Your task to perform on an android device: Search for a cheap bike on Walmart Image 0: 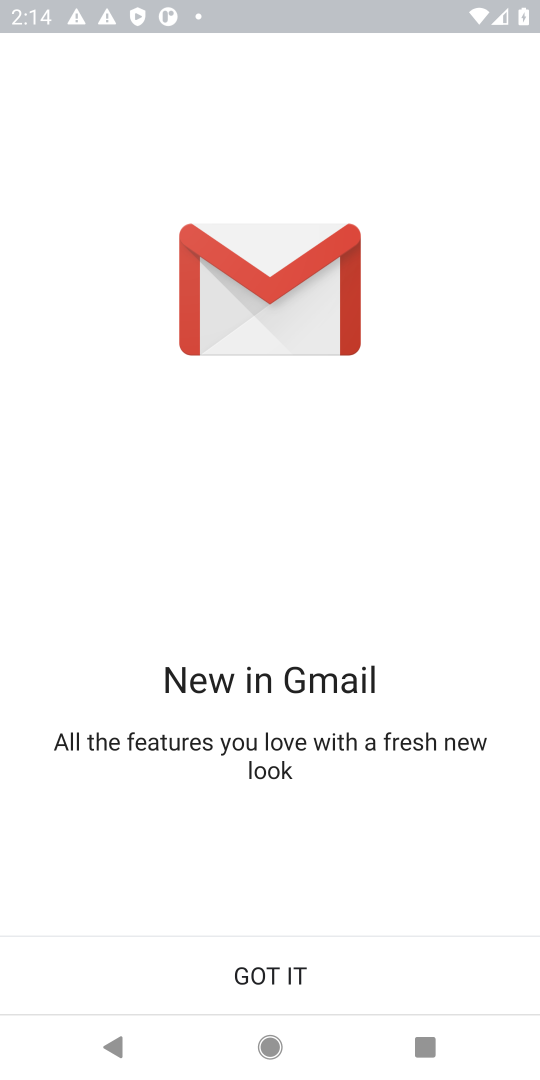
Step 0: press home button
Your task to perform on an android device: Search for a cheap bike on Walmart Image 1: 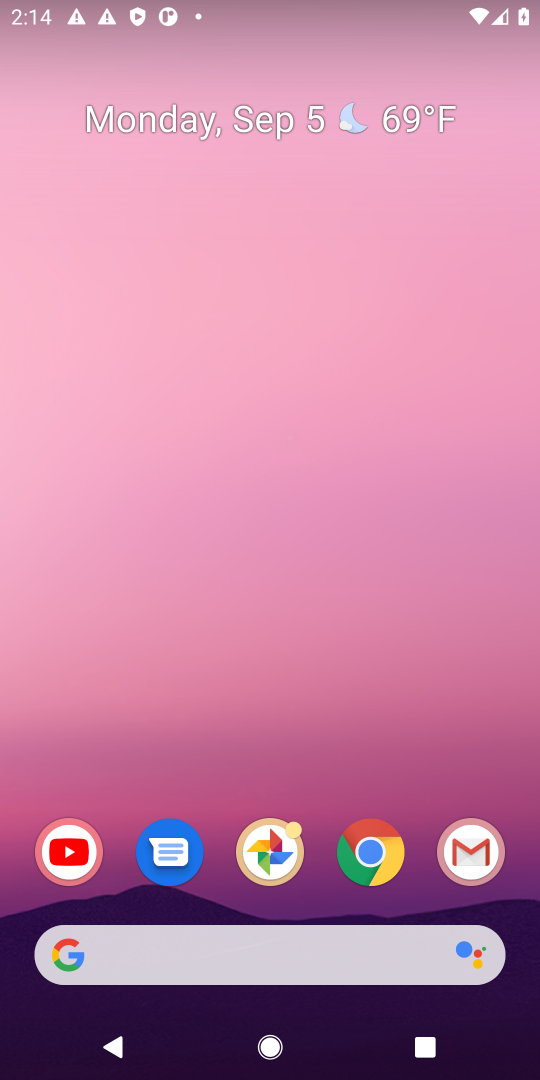
Step 1: click (374, 854)
Your task to perform on an android device: Search for a cheap bike on Walmart Image 2: 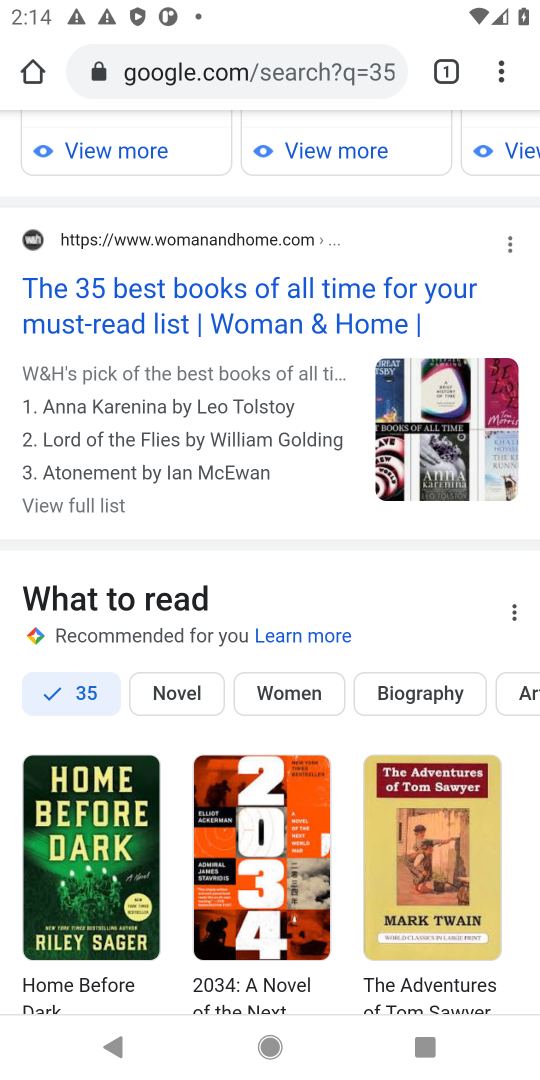
Step 2: click (279, 52)
Your task to perform on an android device: Search for a cheap bike on Walmart Image 3: 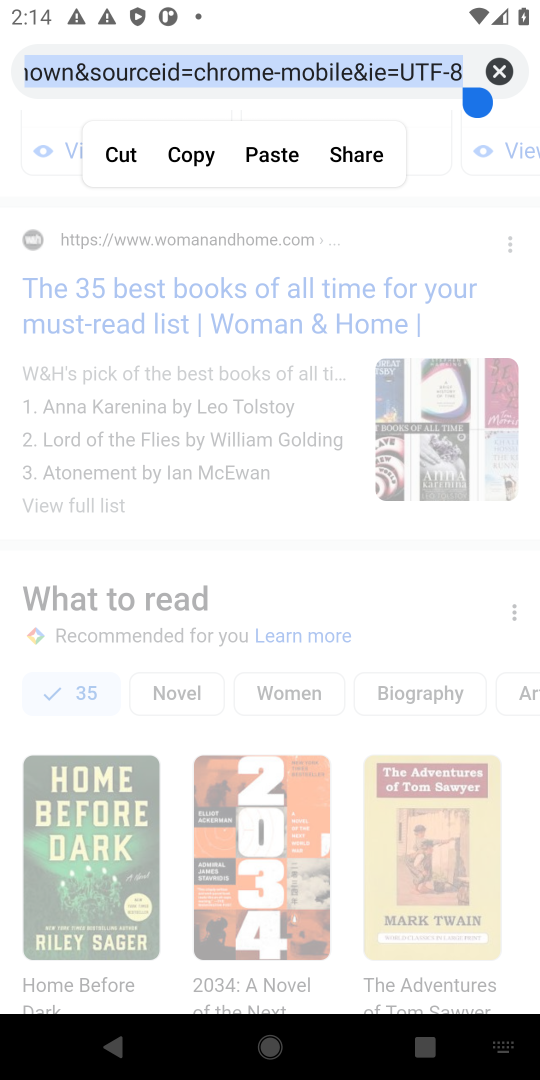
Step 3: click (493, 65)
Your task to perform on an android device: Search for a cheap bike on Walmart Image 4: 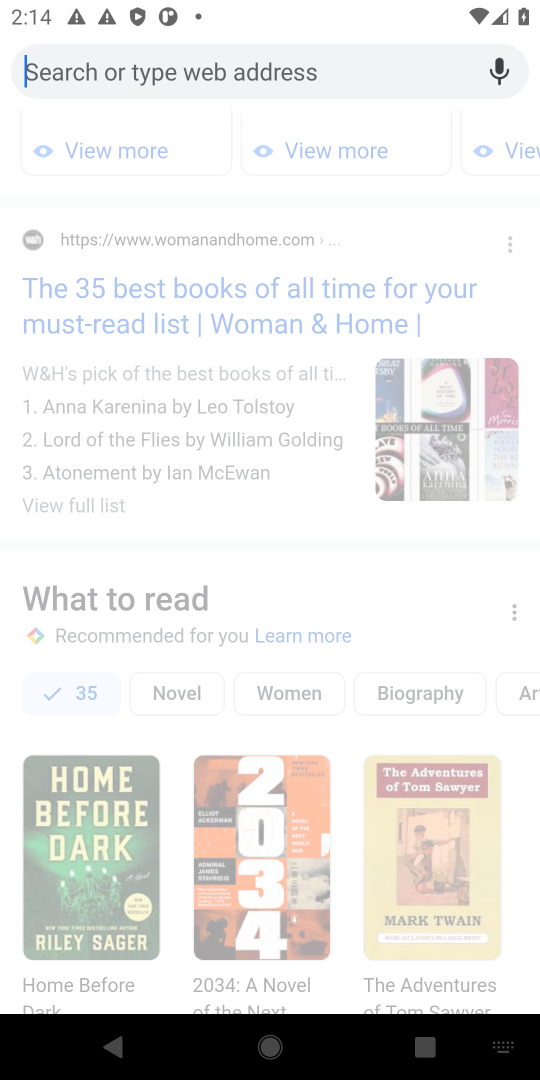
Step 4: type "Walmart"
Your task to perform on an android device: Search for a cheap bike on Walmart Image 5: 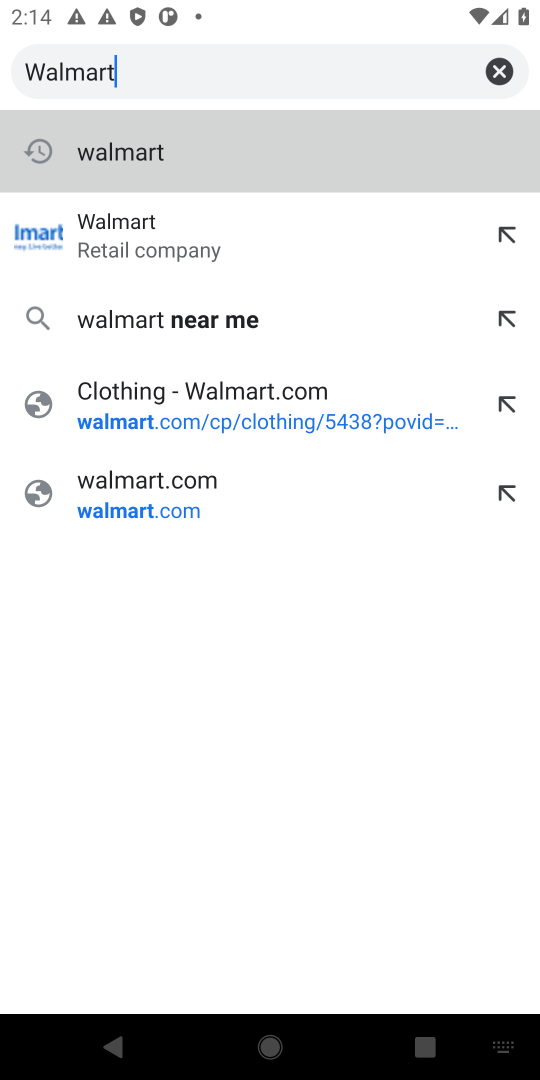
Step 5: click (110, 231)
Your task to perform on an android device: Search for a cheap bike on Walmart Image 6: 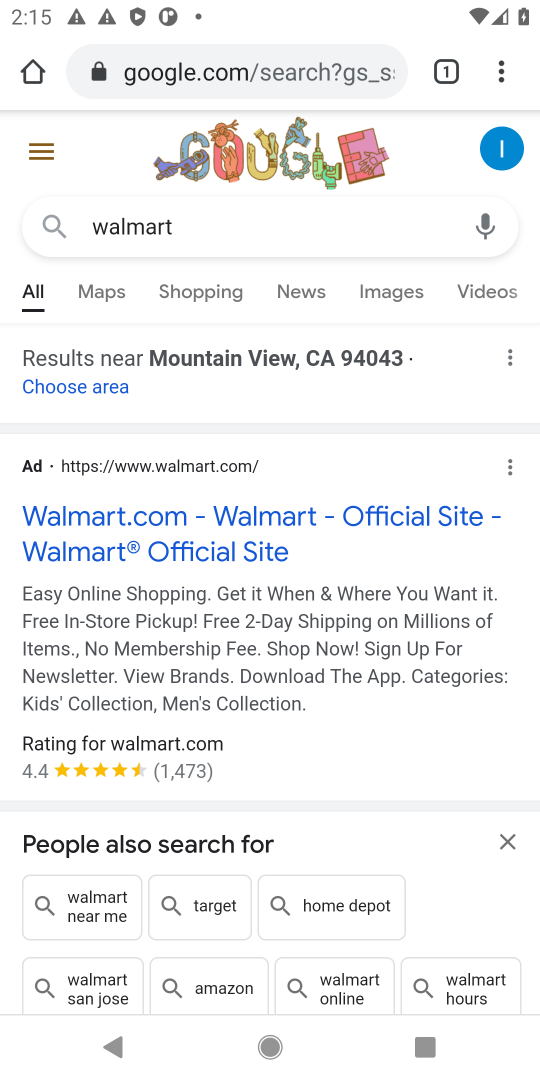
Step 6: click (82, 512)
Your task to perform on an android device: Search for a cheap bike on Walmart Image 7: 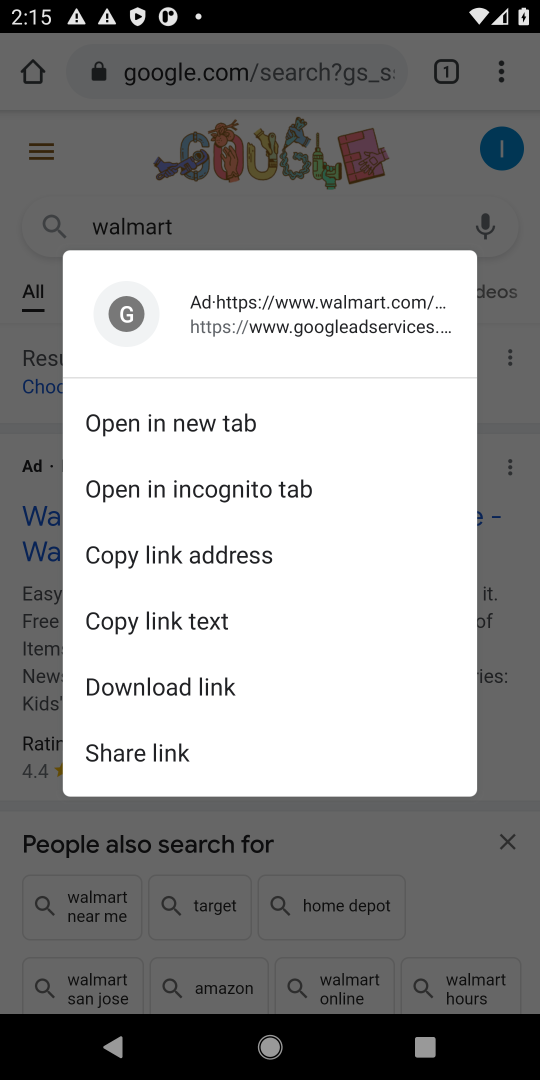
Step 7: click (18, 533)
Your task to perform on an android device: Search for a cheap bike on Walmart Image 8: 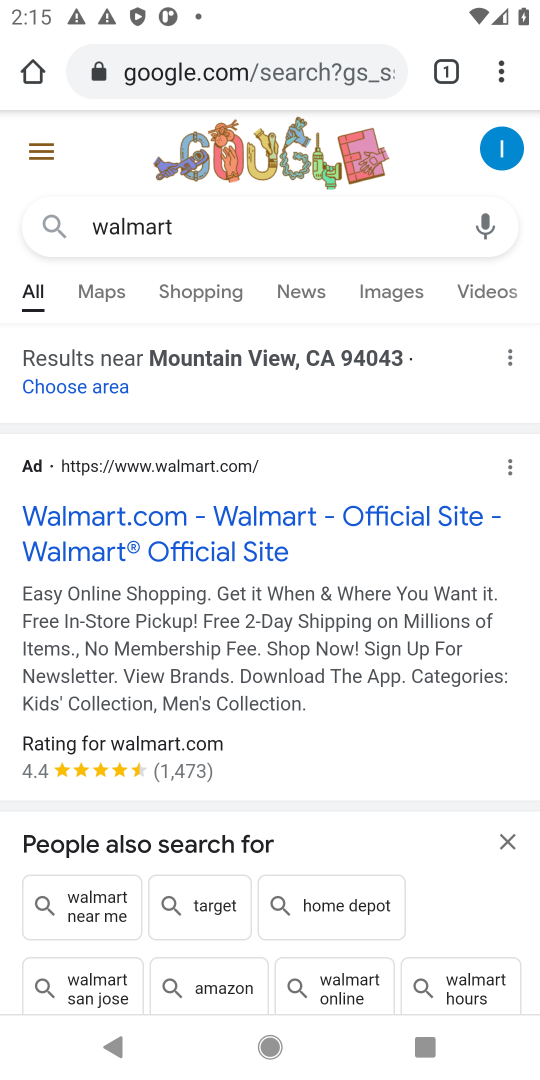
Step 8: click (120, 515)
Your task to perform on an android device: Search for a cheap bike on Walmart Image 9: 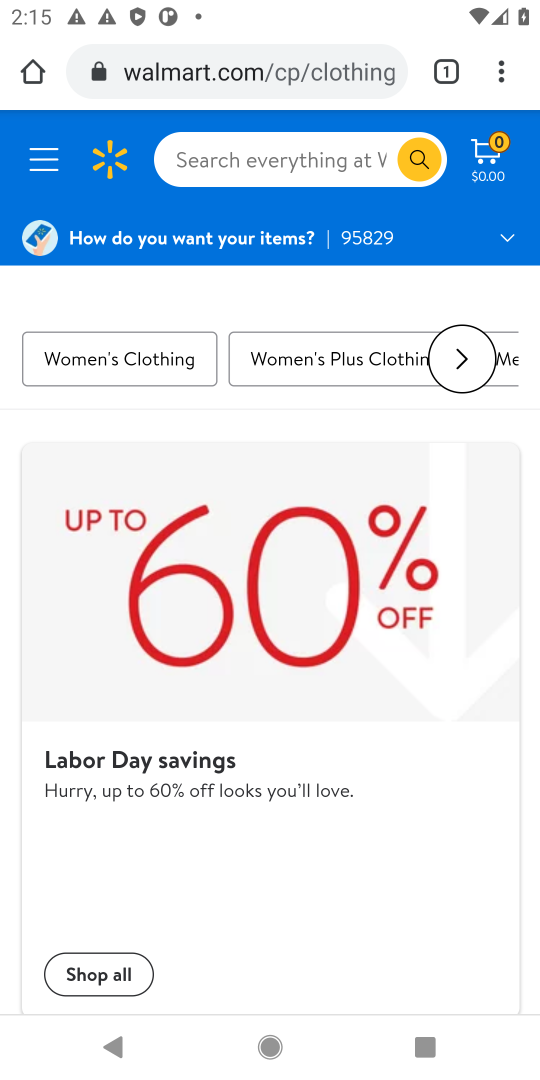
Step 9: click (281, 159)
Your task to perform on an android device: Search for a cheap bike on Walmart Image 10: 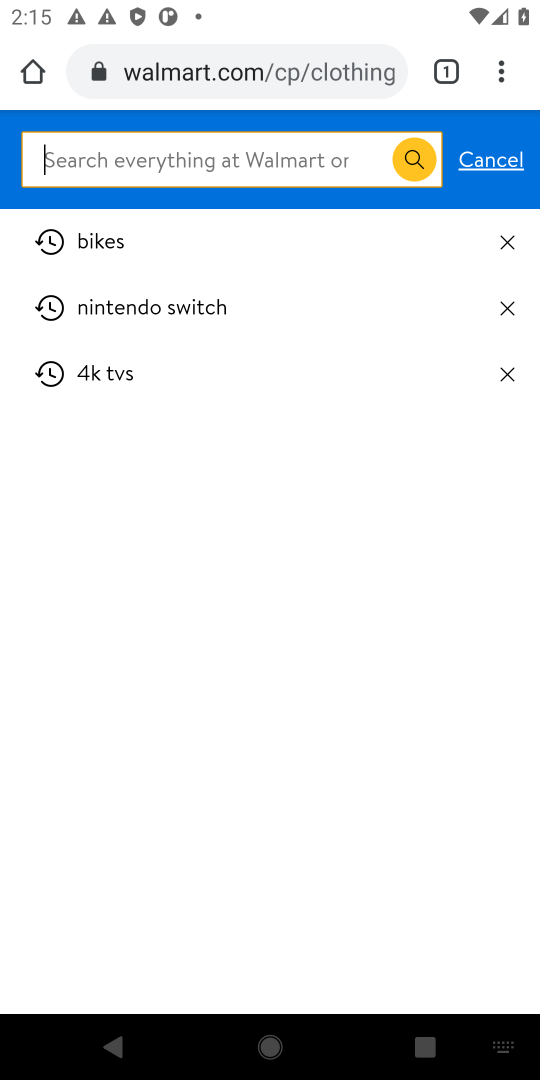
Step 10: type "cheap bike"
Your task to perform on an android device: Search for a cheap bike on Walmart Image 11: 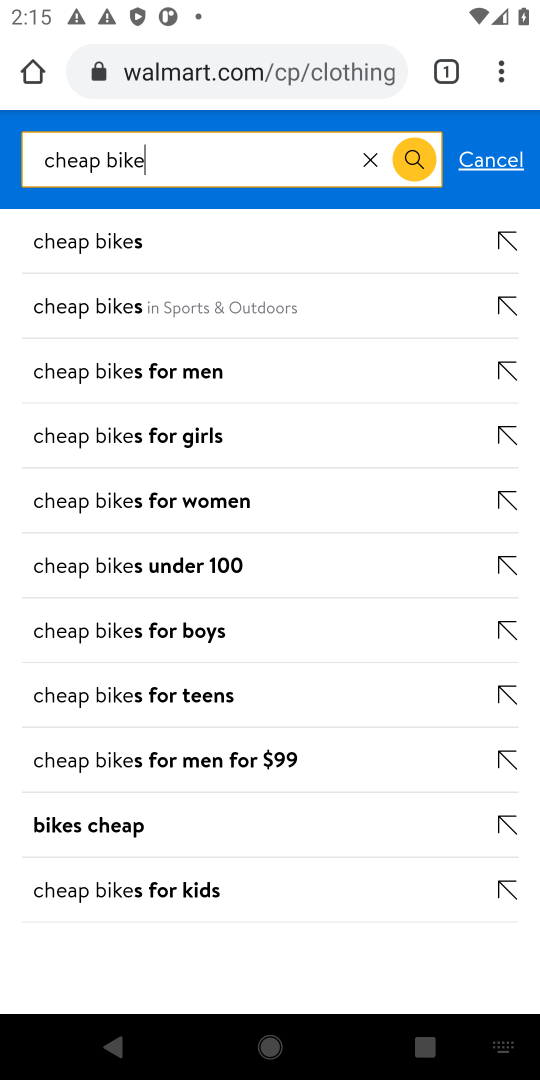
Step 11: click (74, 230)
Your task to perform on an android device: Search for a cheap bike on Walmart Image 12: 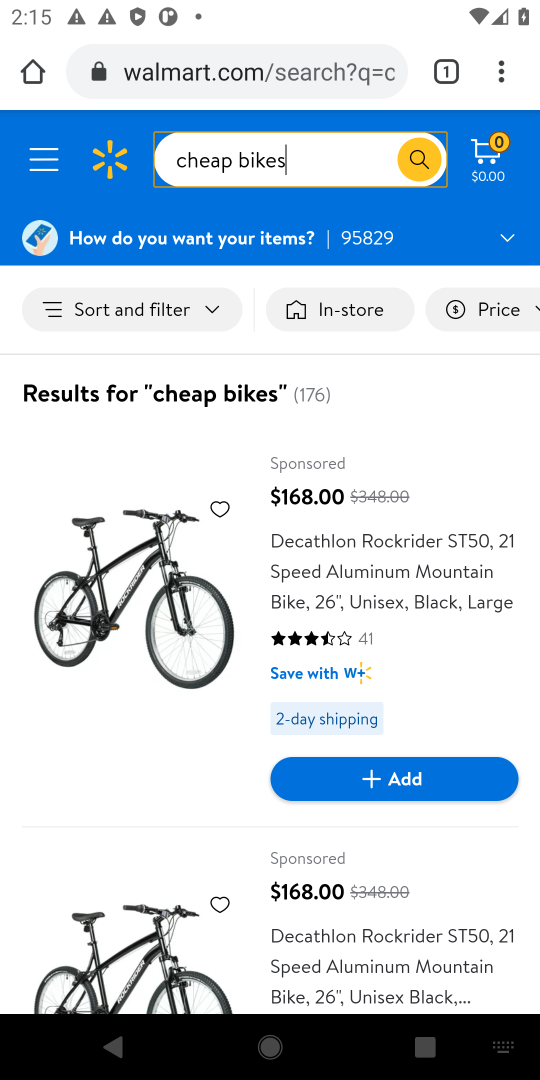
Step 12: task complete